Your task to perform on an android device: Open Android settings Image 0: 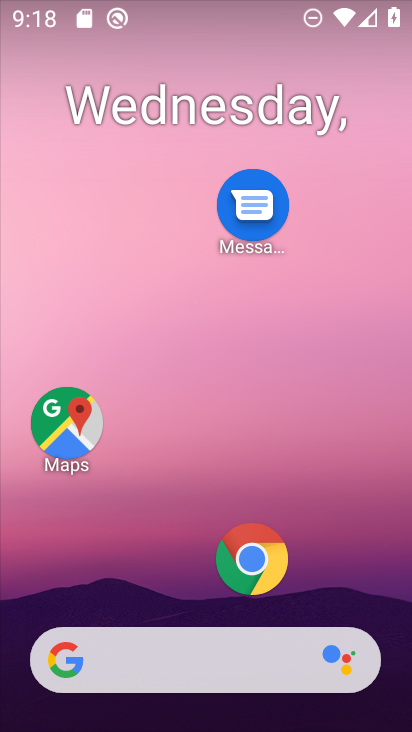
Step 0: drag from (149, 620) to (299, 23)
Your task to perform on an android device: Open Android settings Image 1: 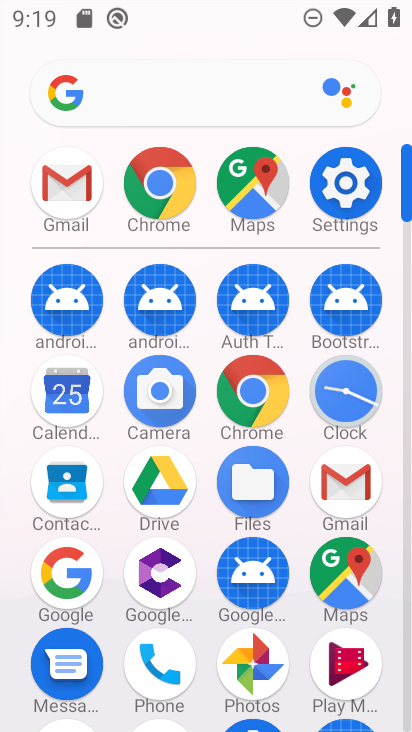
Step 1: click (345, 209)
Your task to perform on an android device: Open Android settings Image 2: 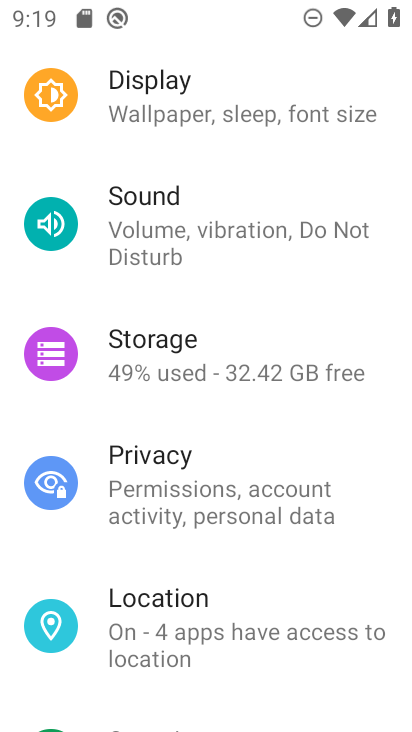
Step 2: drag from (226, 546) to (307, 9)
Your task to perform on an android device: Open Android settings Image 3: 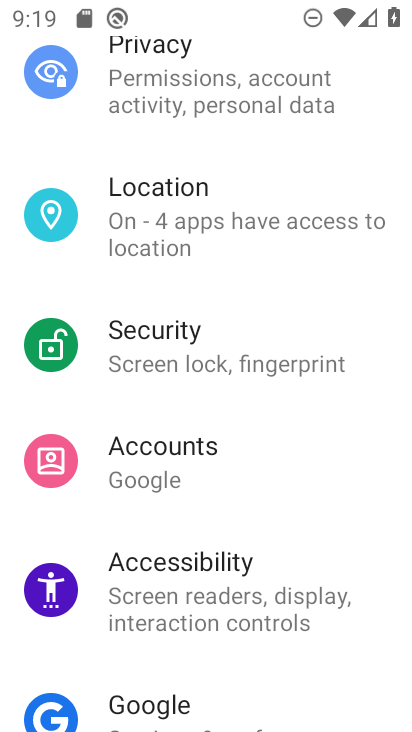
Step 3: drag from (242, 468) to (399, 594)
Your task to perform on an android device: Open Android settings Image 4: 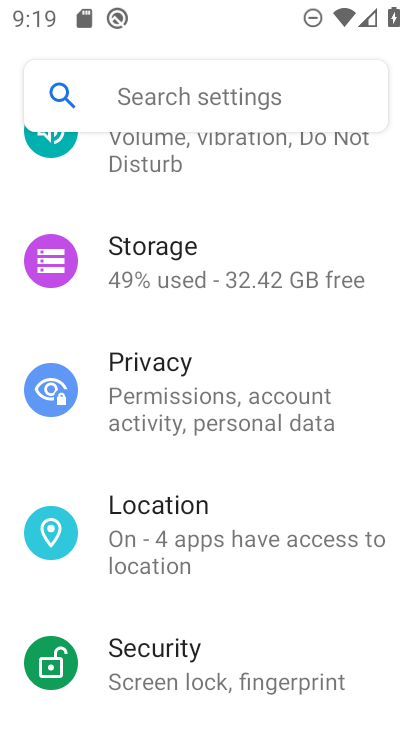
Step 4: drag from (215, 576) to (217, 101)
Your task to perform on an android device: Open Android settings Image 5: 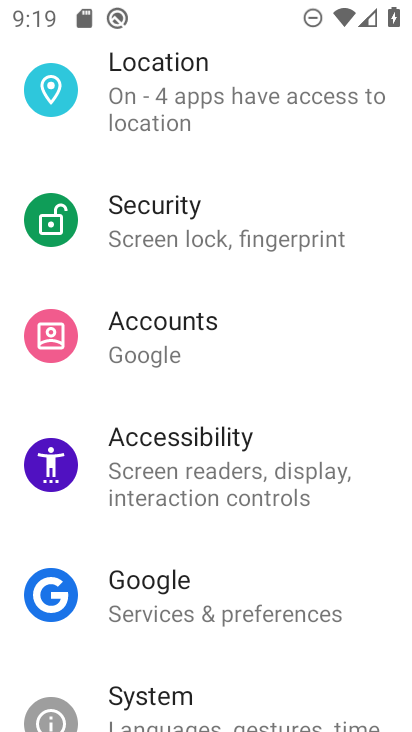
Step 5: drag from (183, 546) to (207, 41)
Your task to perform on an android device: Open Android settings Image 6: 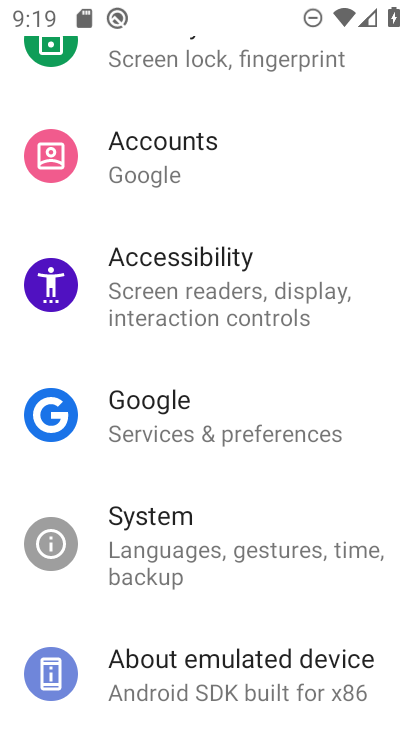
Step 6: click (270, 695)
Your task to perform on an android device: Open Android settings Image 7: 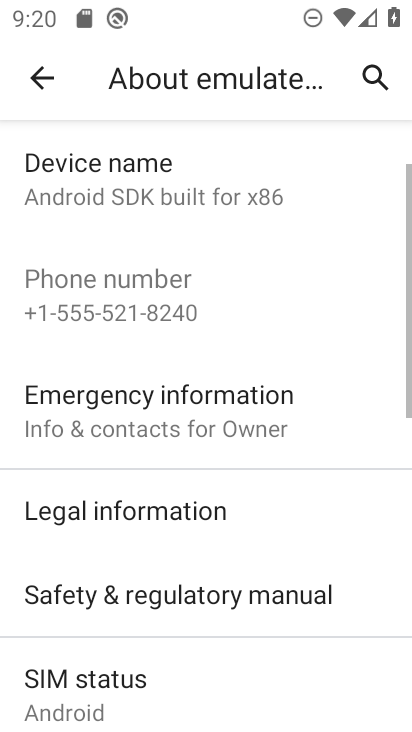
Step 7: drag from (200, 559) to (238, 309)
Your task to perform on an android device: Open Android settings Image 8: 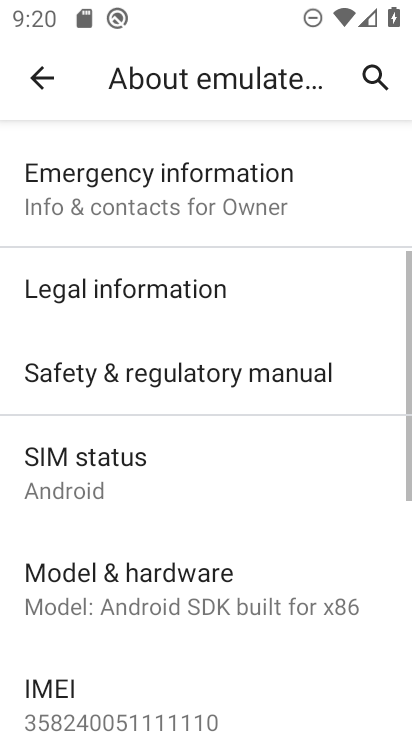
Step 8: drag from (234, 590) to (303, 192)
Your task to perform on an android device: Open Android settings Image 9: 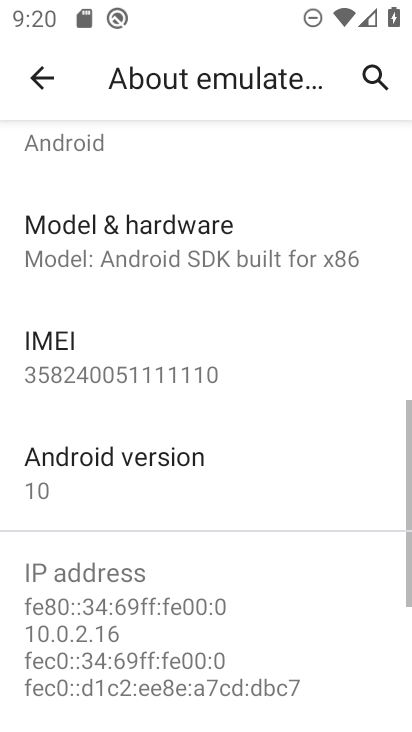
Step 9: click (218, 467)
Your task to perform on an android device: Open Android settings Image 10: 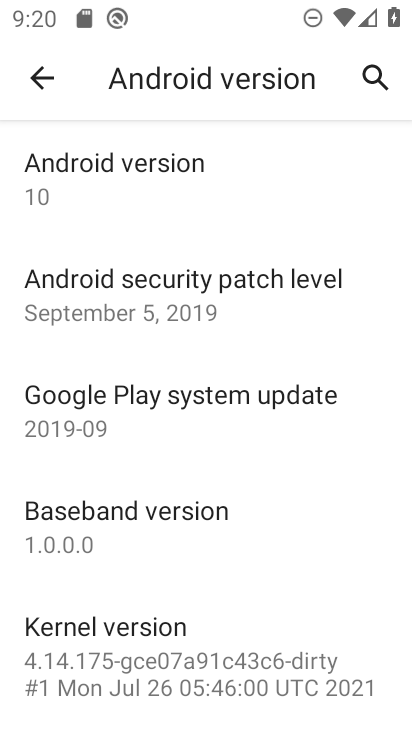
Step 10: task complete